Your task to perform on an android device: Search for sushi restaurants on Maps Image 0: 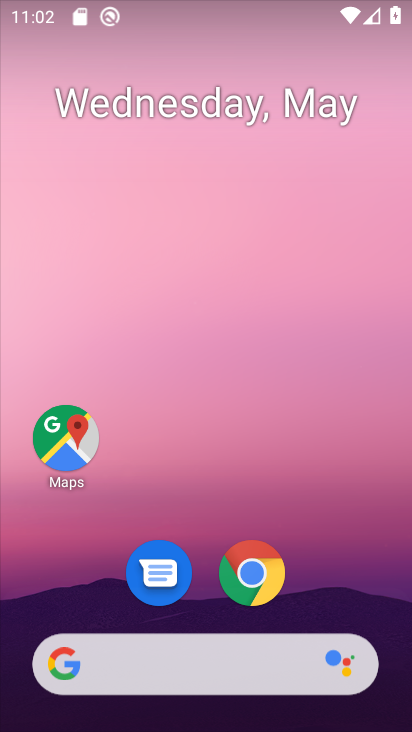
Step 0: click (64, 443)
Your task to perform on an android device: Search for sushi restaurants on Maps Image 1: 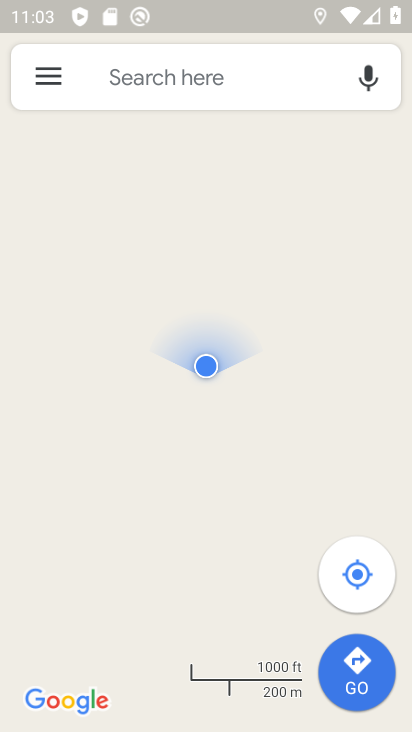
Step 1: click (154, 78)
Your task to perform on an android device: Search for sushi restaurants on Maps Image 2: 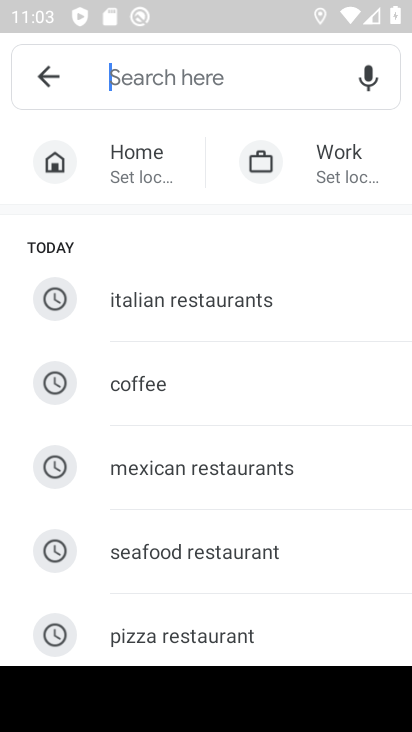
Step 2: type "sushi restaurants"
Your task to perform on an android device: Search for sushi restaurants on Maps Image 3: 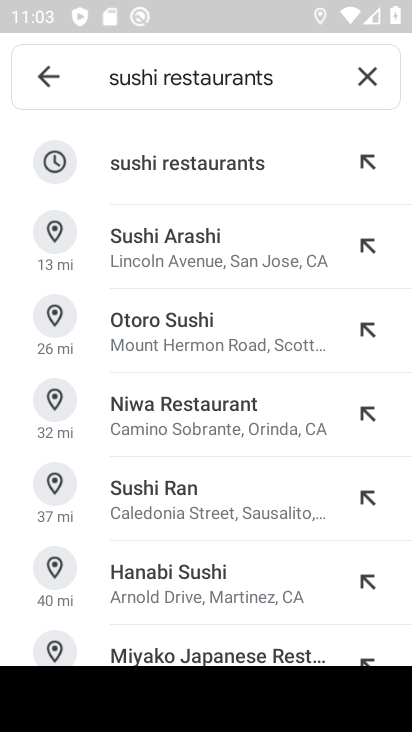
Step 3: click (160, 162)
Your task to perform on an android device: Search for sushi restaurants on Maps Image 4: 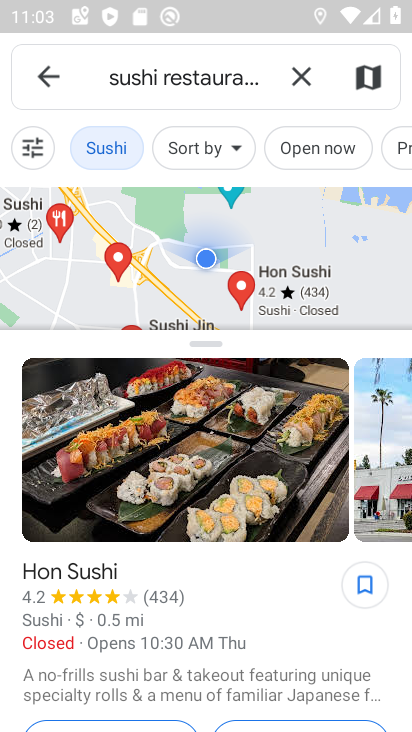
Step 4: task complete